Your task to perform on an android device: Open the web browser Image 0: 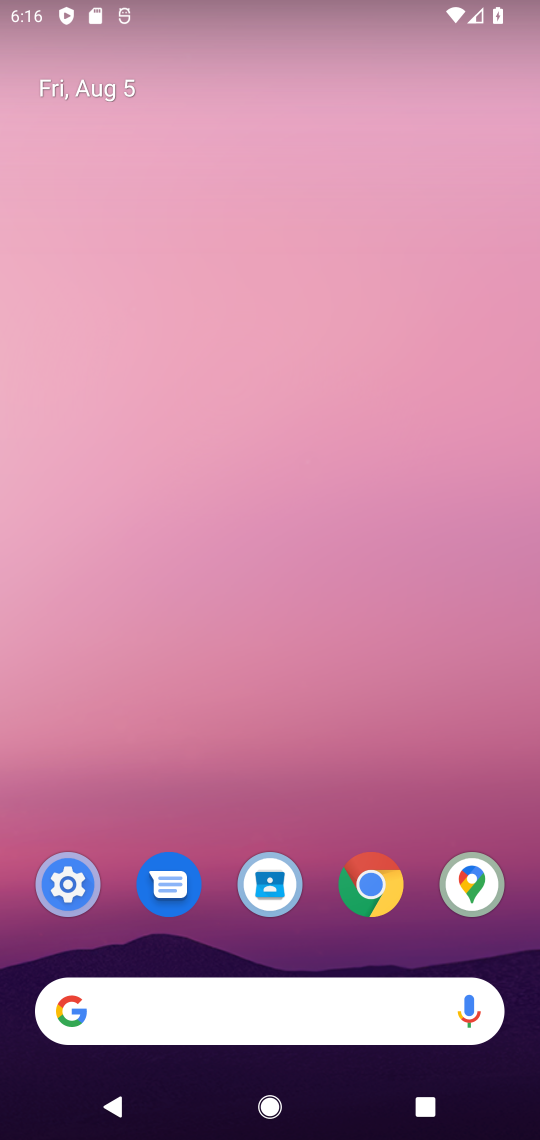
Step 0: press home button
Your task to perform on an android device: Open the web browser Image 1: 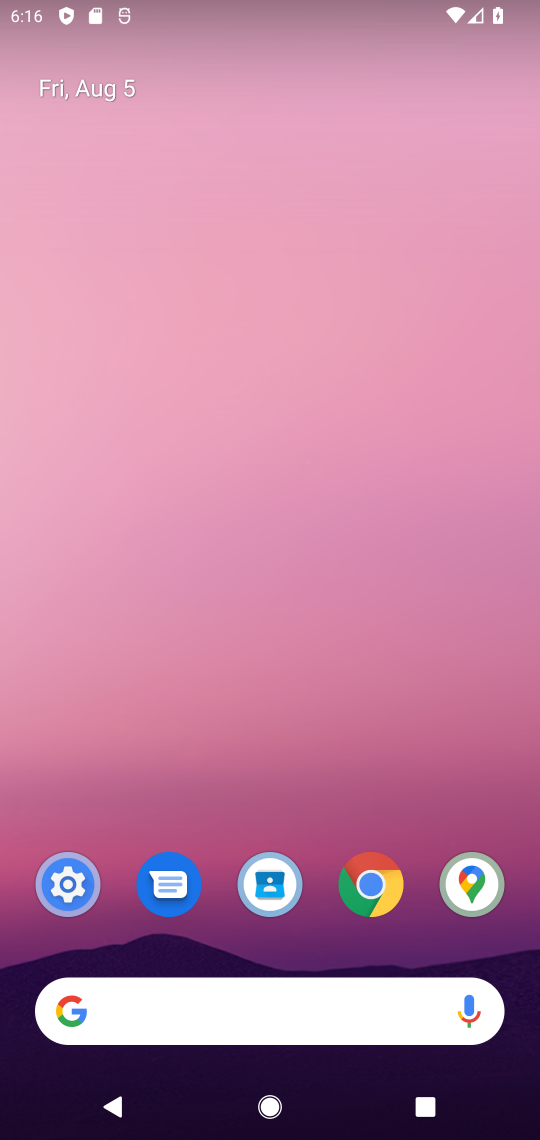
Step 1: click (365, 874)
Your task to perform on an android device: Open the web browser Image 2: 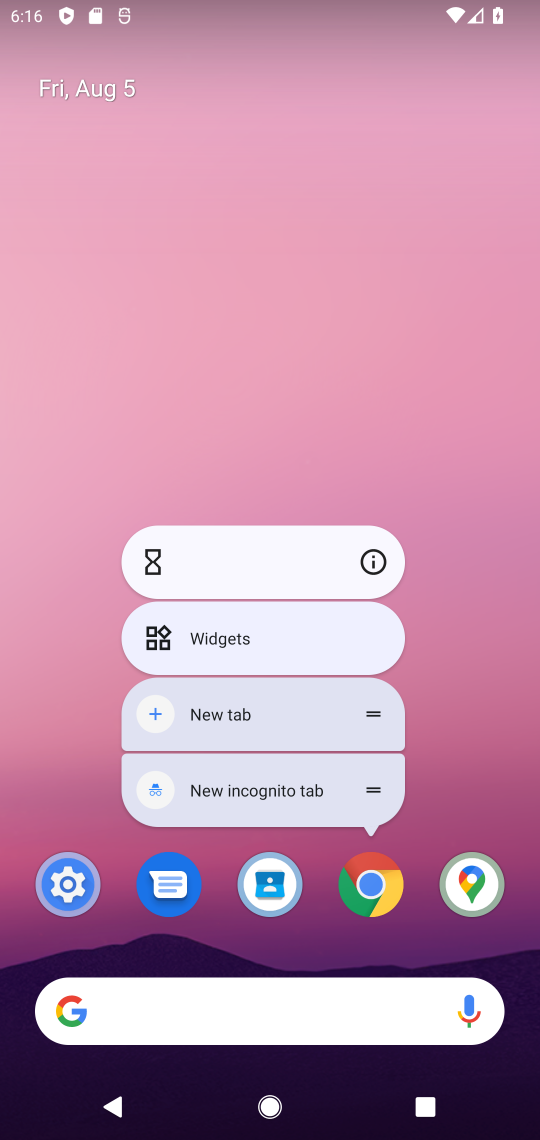
Step 2: click (413, 822)
Your task to perform on an android device: Open the web browser Image 3: 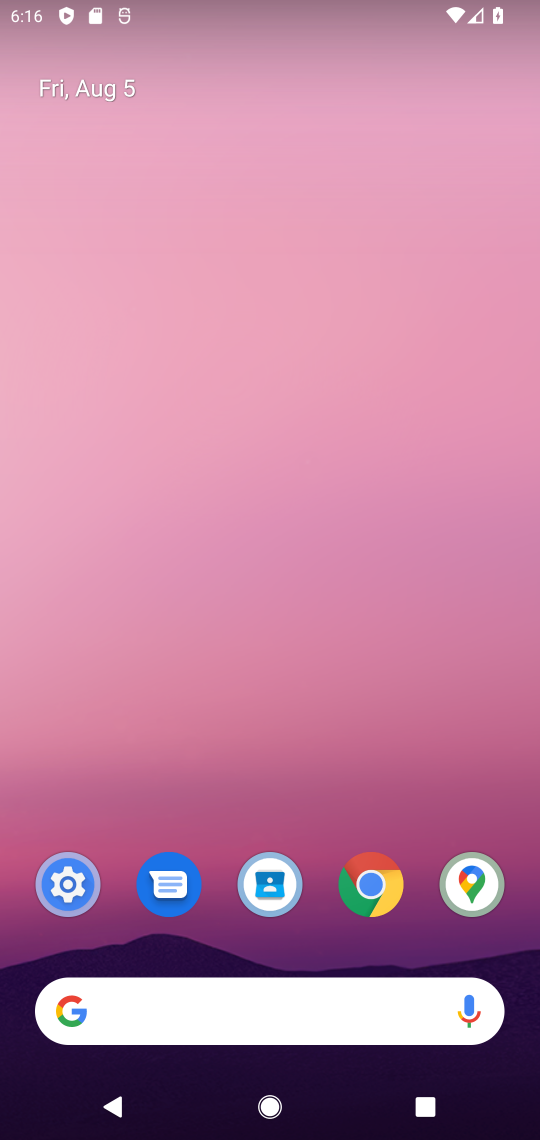
Step 3: drag from (418, 616) to (434, 193)
Your task to perform on an android device: Open the web browser Image 4: 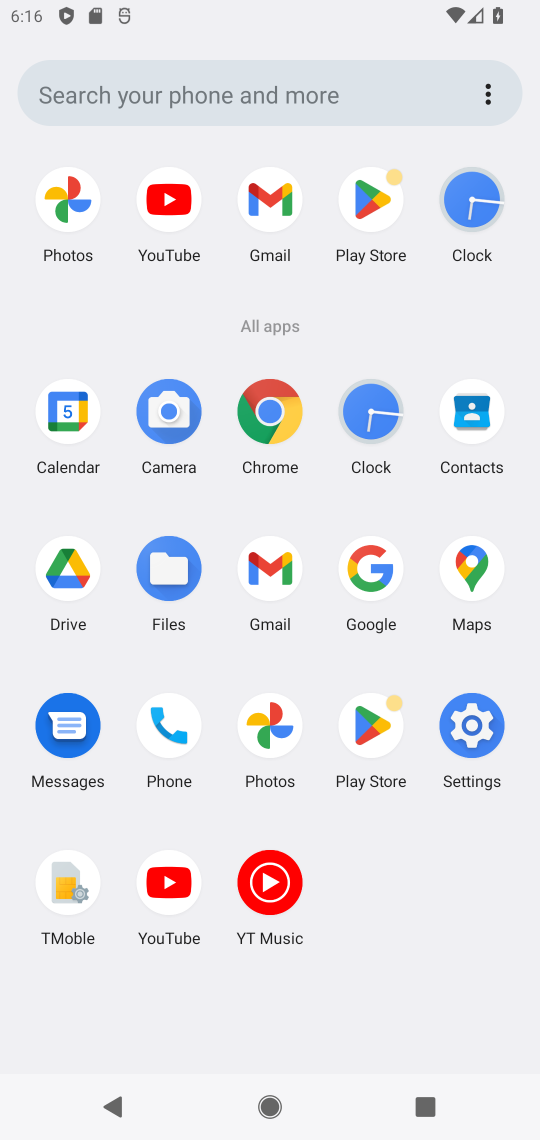
Step 4: click (265, 411)
Your task to perform on an android device: Open the web browser Image 5: 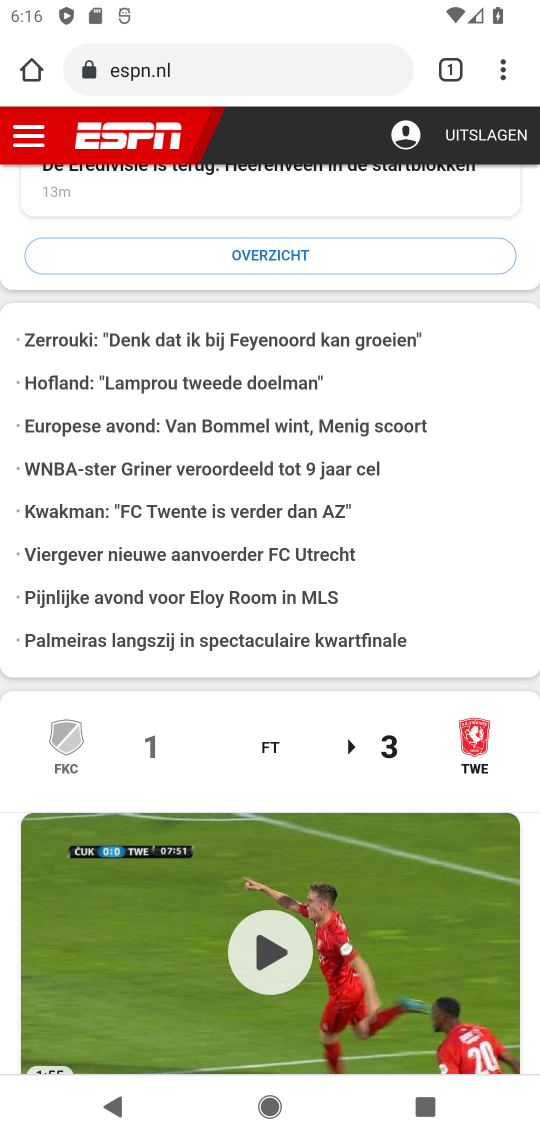
Step 5: click (453, 65)
Your task to perform on an android device: Open the web browser Image 6: 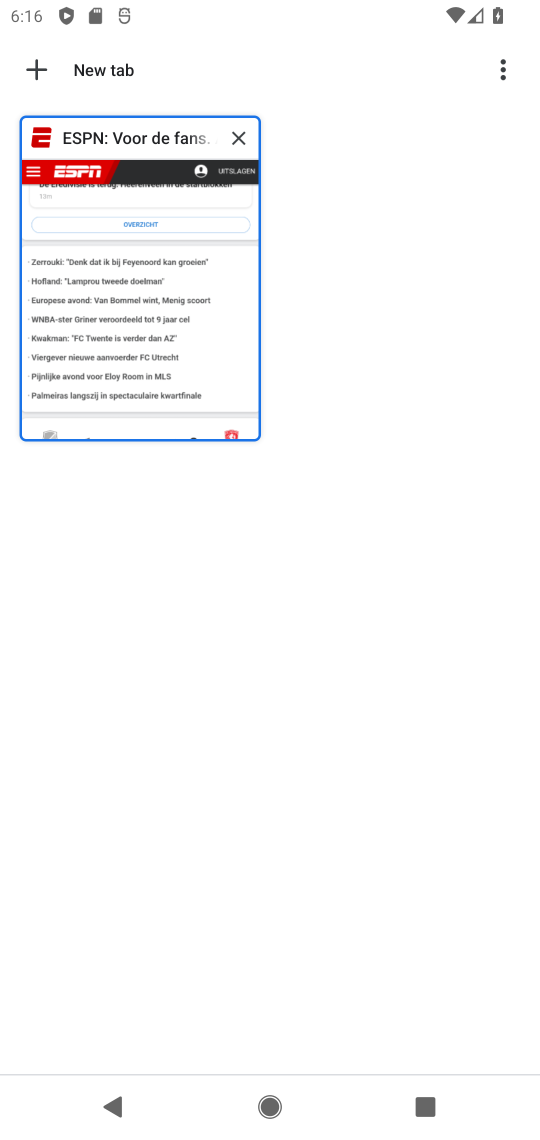
Step 6: click (34, 60)
Your task to perform on an android device: Open the web browser Image 7: 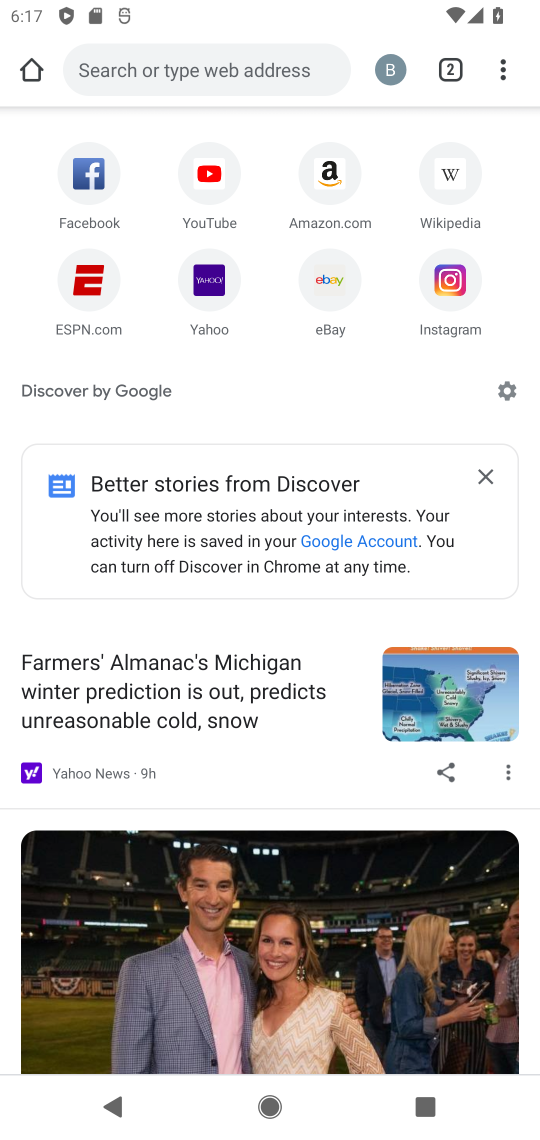
Step 7: task complete